Your task to perform on an android device: change the clock style Image 0: 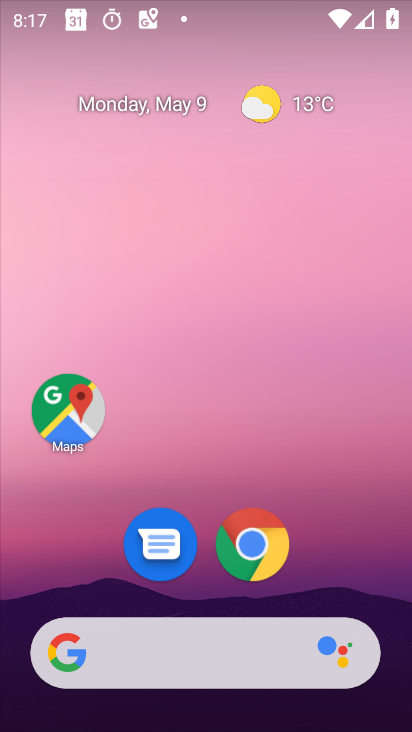
Step 0: drag from (345, 559) to (409, 367)
Your task to perform on an android device: change the clock style Image 1: 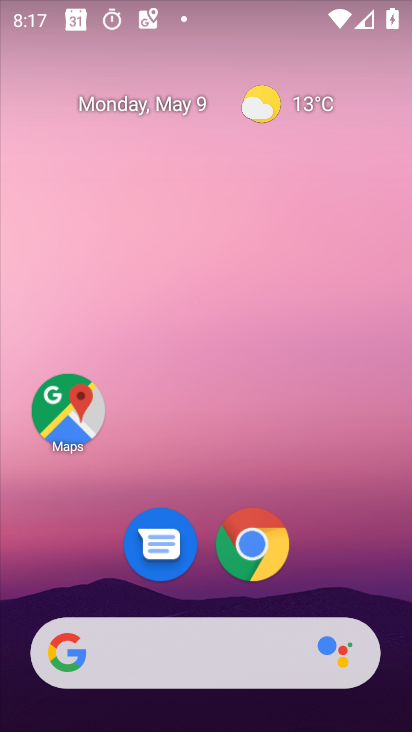
Step 1: drag from (340, 557) to (351, 129)
Your task to perform on an android device: change the clock style Image 2: 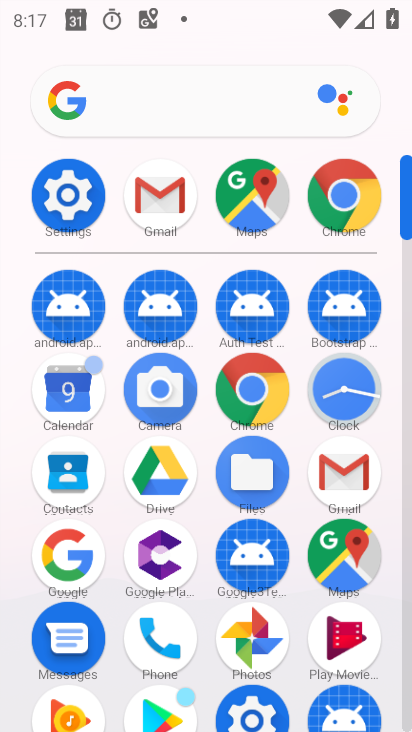
Step 2: click (353, 404)
Your task to perform on an android device: change the clock style Image 3: 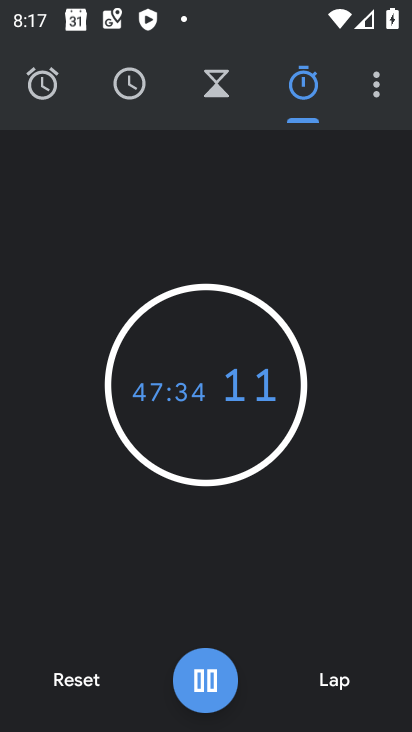
Step 3: click (372, 92)
Your task to perform on an android device: change the clock style Image 4: 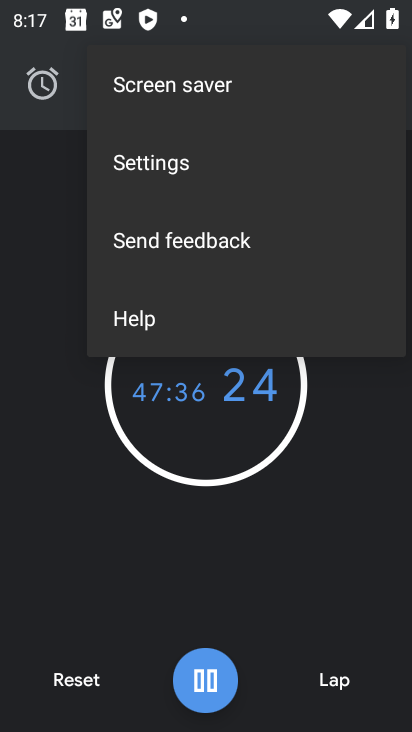
Step 4: click (97, 178)
Your task to perform on an android device: change the clock style Image 5: 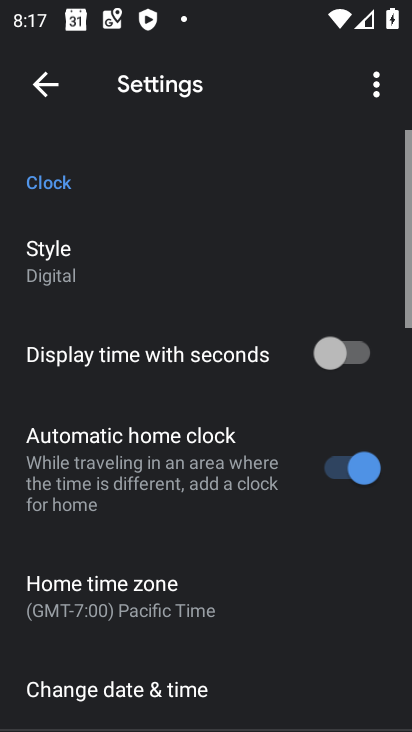
Step 5: click (74, 262)
Your task to perform on an android device: change the clock style Image 6: 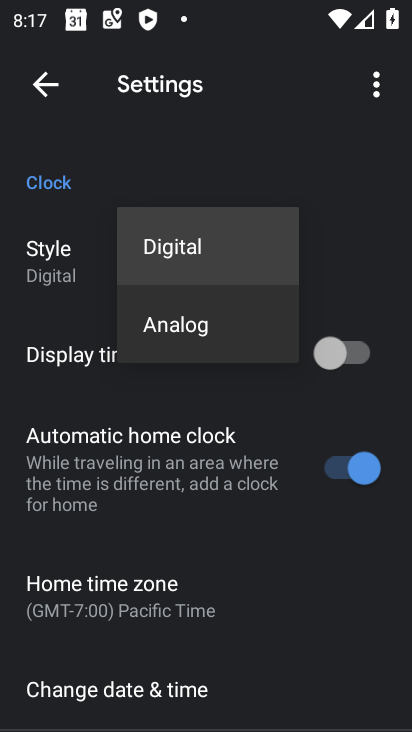
Step 6: click (186, 330)
Your task to perform on an android device: change the clock style Image 7: 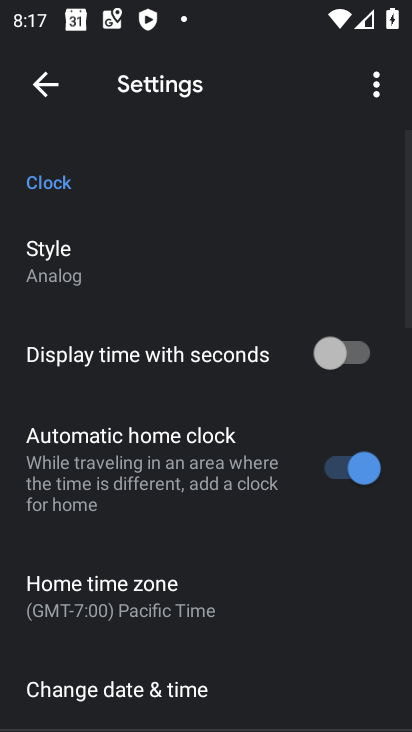
Step 7: task complete